Your task to perform on an android device: Open calendar and show me the first week of next month Image 0: 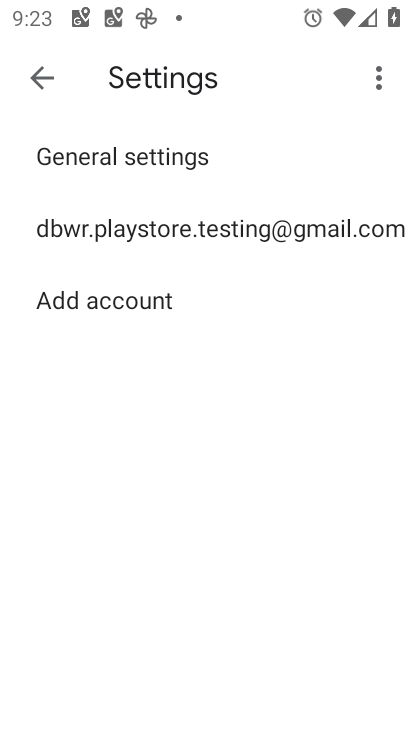
Step 0: press home button
Your task to perform on an android device: Open calendar and show me the first week of next month Image 1: 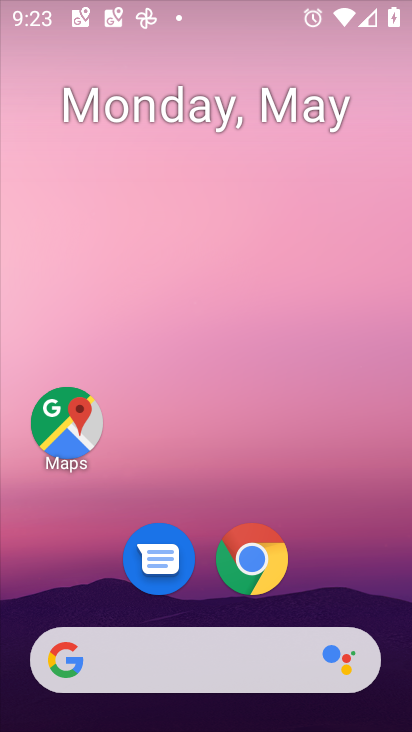
Step 1: drag from (406, 656) to (388, 85)
Your task to perform on an android device: Open calendar and show me the first week of next month Image 2: 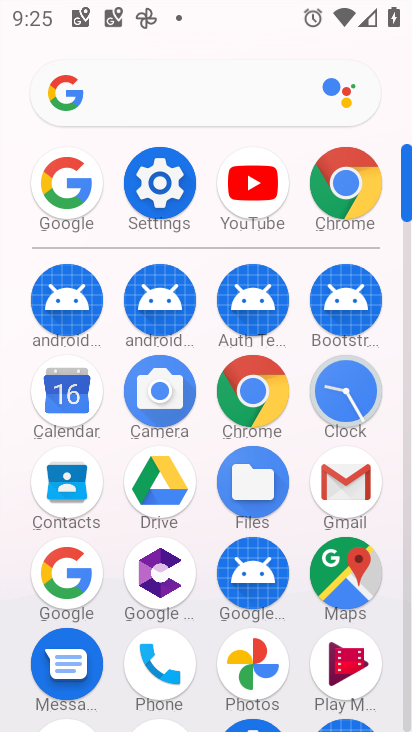
Step 2: click (47, 406)
Your task to perform on an android device: Open calendar and show me the first week of next month Image 3: 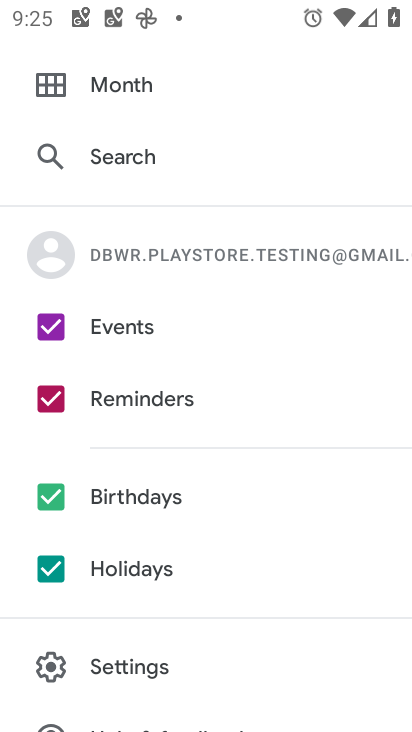
Step 3: drag from (150, 155) to (165, 603)
Your task to perform on an android device: Open calendar and show me the first week of next month Image 4: 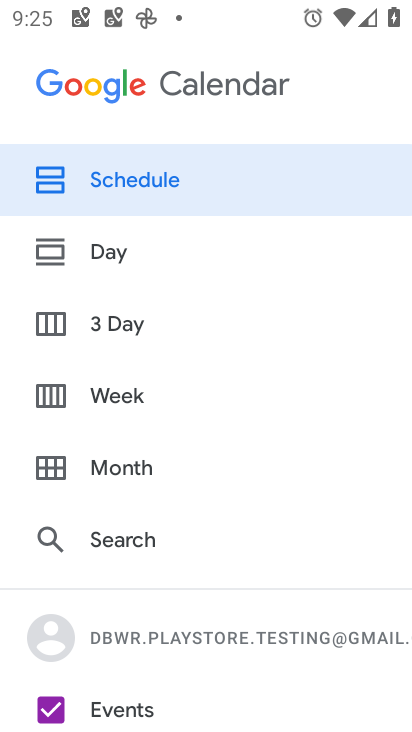
Step 4: press back button
Your task to perform on an android device: Open calendar and show me the first week of next month Image 5: 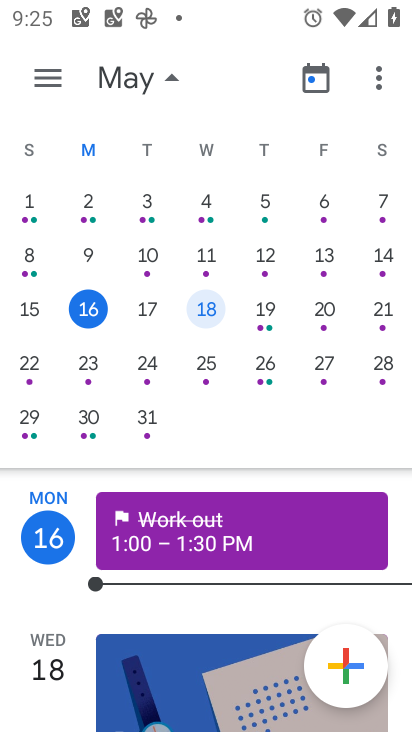
Step 5: click (104, 74)
Your task to perform on an android device: Open calendar and show me the first week of next month Image 6: 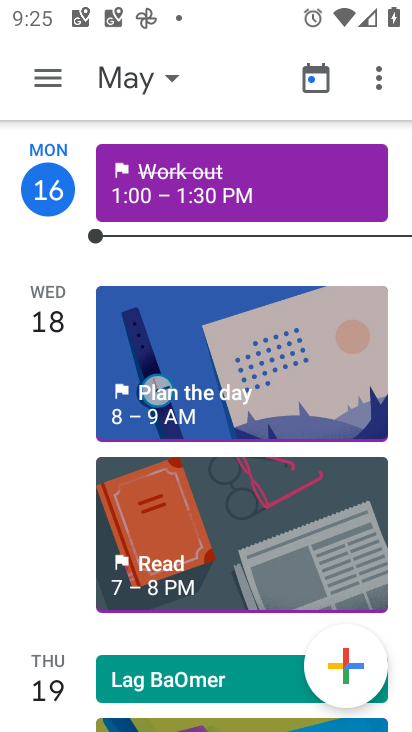
Step 6: click (119, 82)
Your task to perform on an android device: Open calendar and show me the first week of next month Image 7: 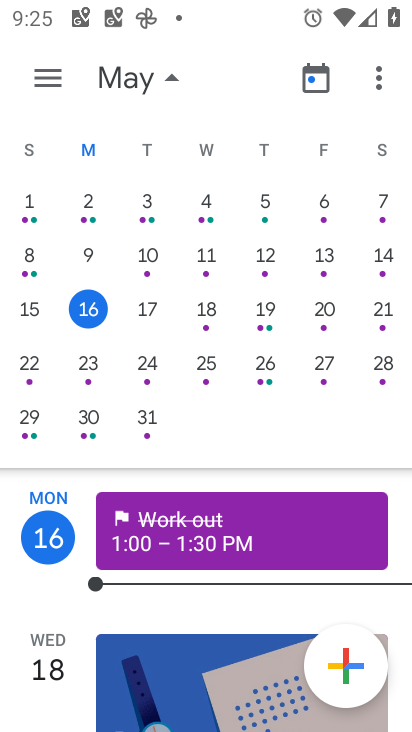
Step 7: drag from (318, 262) to (36, 192)
Your task to perform on an android device: Open calendar and show me the first week of next month Image 8: 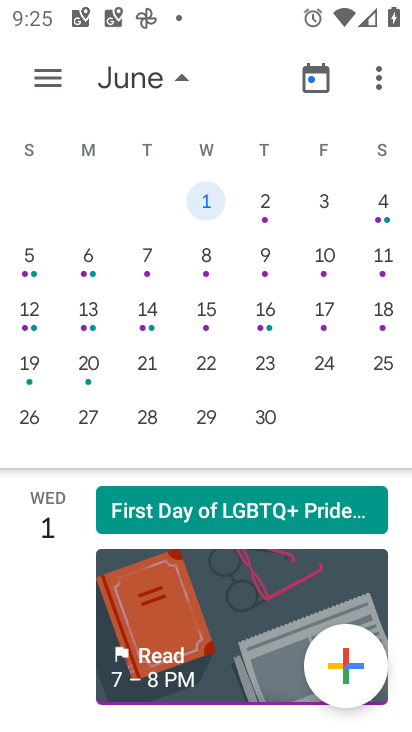
Step 8: click (81, 268)
Your task to perform on an android device: Open calendar and show me the first week of next month Image 9: 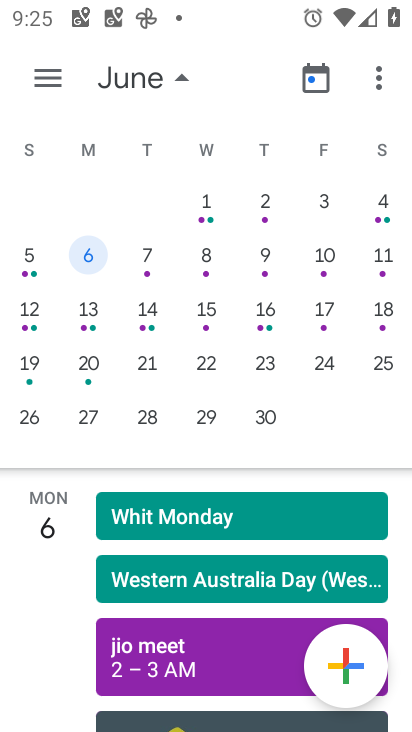
Step 9: task complete